Your task to perform on an android device: Go to settings Image 0: 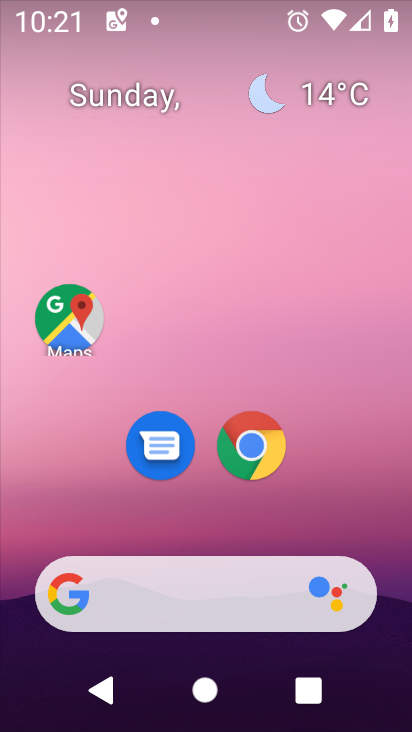
Step 0: drag from (206, 507) to (240, 0)
Your task to perform on an android device: Go to settings Image 1: 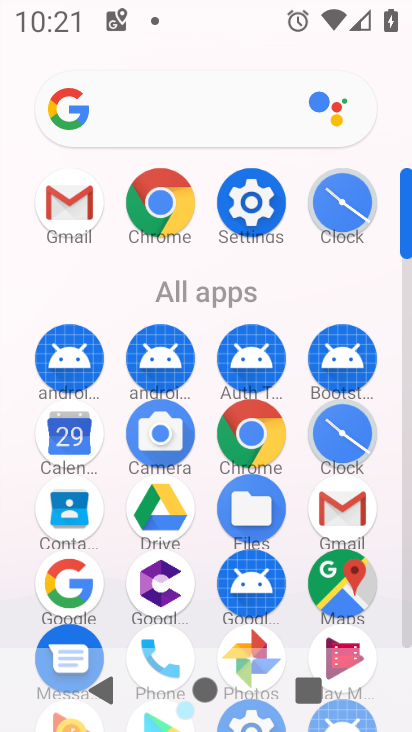
Step 1: click (258, 188)
Your task to perform on an android device: Go to settings Image 2: 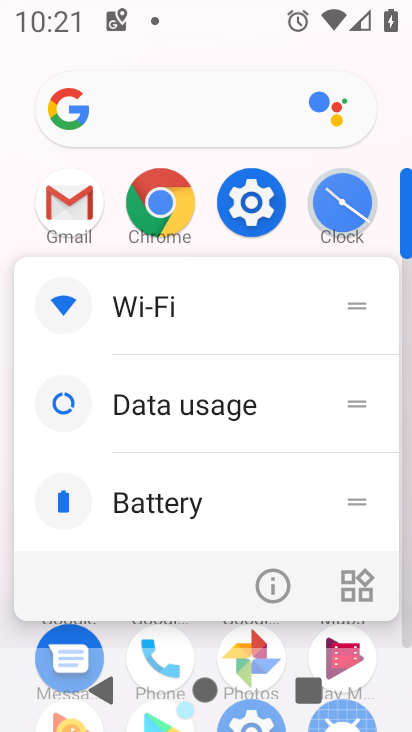
Step 2: click (270, 608)
Your task to perform on an android device: Go to settings Image 3: 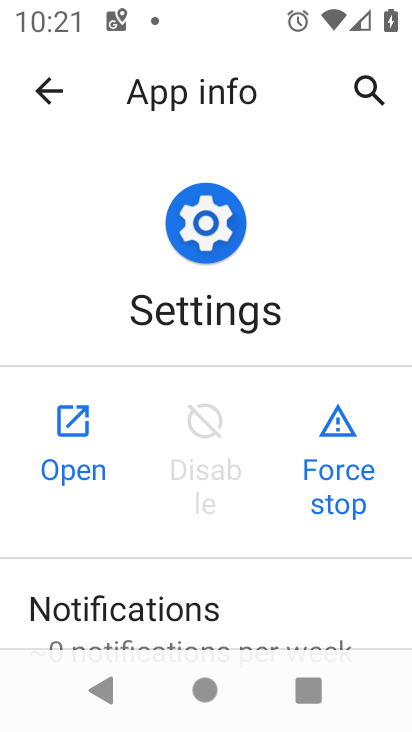
Step 3: click (73, 432)
Your task to perform on an android device: Go to settings Image 4: 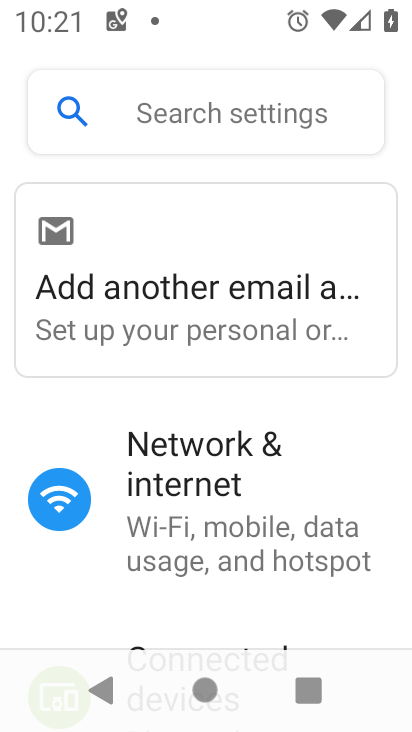
Step 4: task complete